Your task to perform on an android device: View the shopping cart on ebay.com. Add "acer predator" to the cart on ebay.com Image 0: 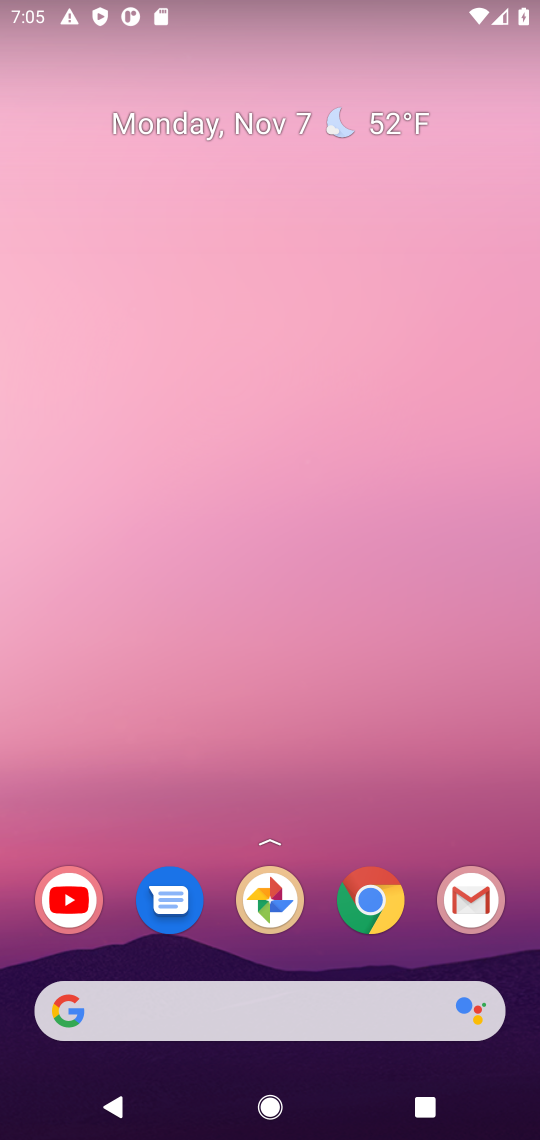
Step 0: click (367, 918)
Your task to perform on an android device: View the shopping cart on ebay.com. Add "acer predator" to the cart on ebay.com Image 1: 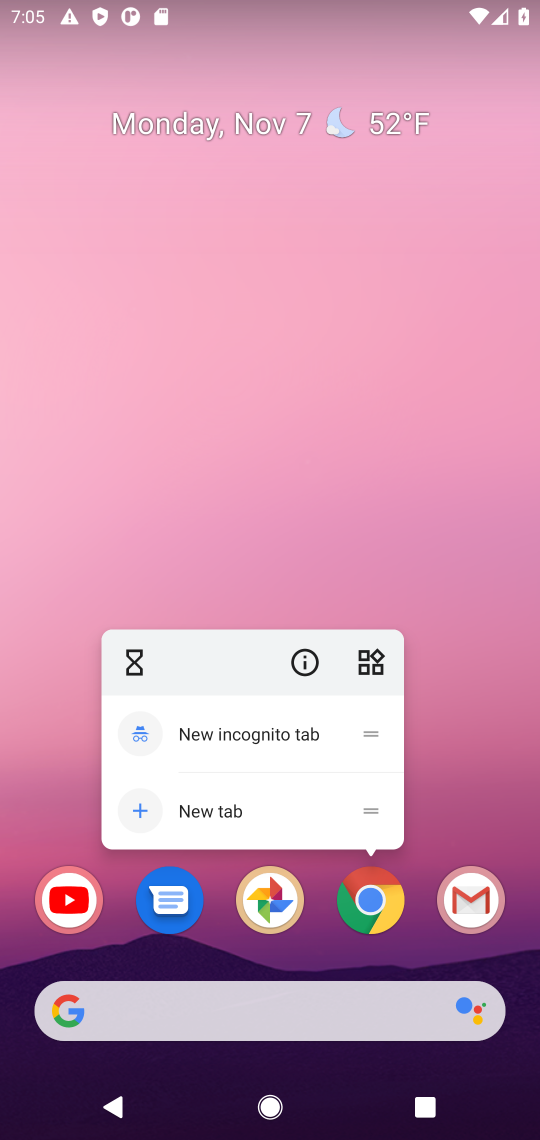
Step 1: click (372, 903)
Your task to perform on an android device: View the shopping cart on ebay.com. Add "acer predator" to the cart on ebay.com Image 2: 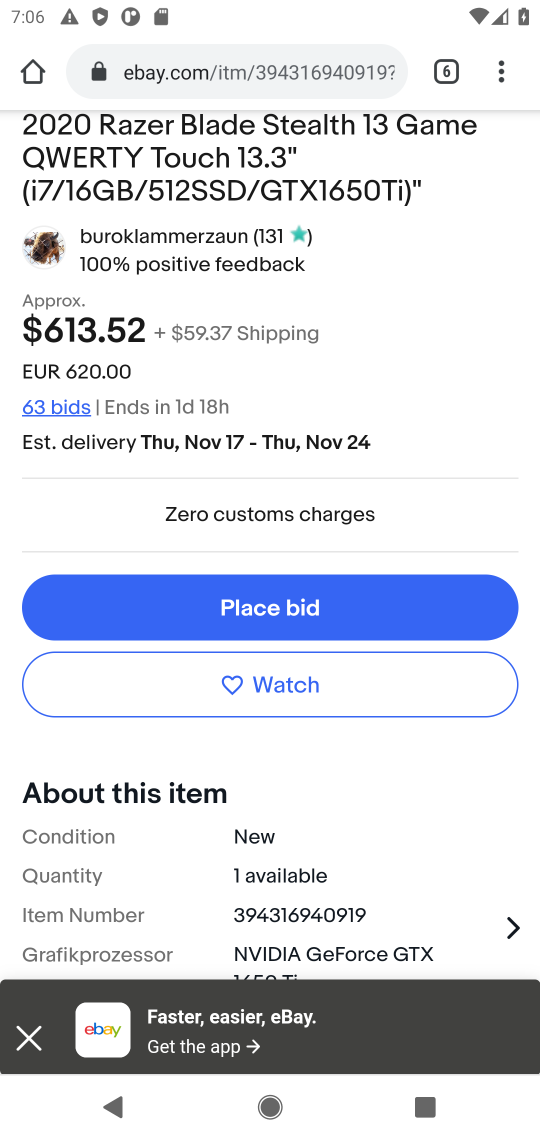
Step 2: drag from (280, 173) to (262, 775)
Your task to perform on an android device: View the shopping cart on ebay.com. Add "acer predator" to the cart on ebay.com Image 3: 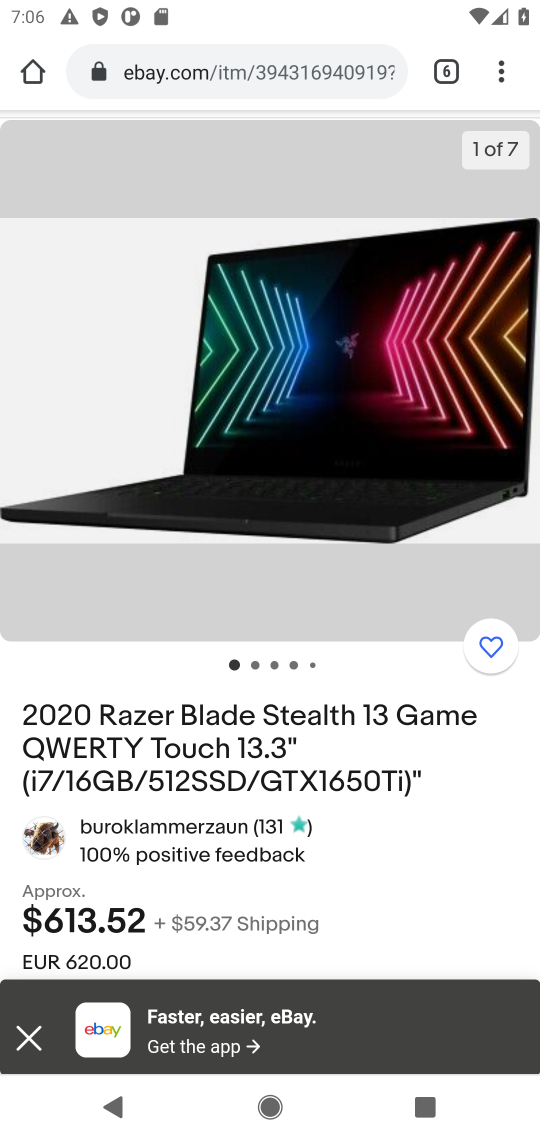
Step 3: click (442, 70)
Your task to perform on an android device: View the shopping cart on ebay.com. Add "acer predator" to the cart on ebay.com Image 4: 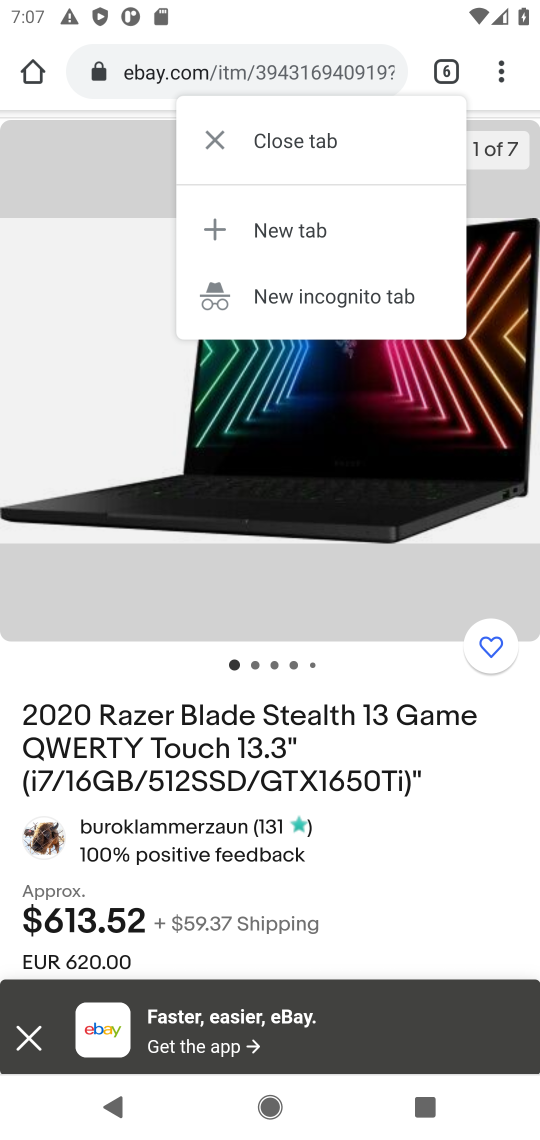
Step 4: click (299, 232)
Your task to perform on an android device: View the shopping cart on ebay.com. Add "acer predator" to the cart on ebay.com Image 5: 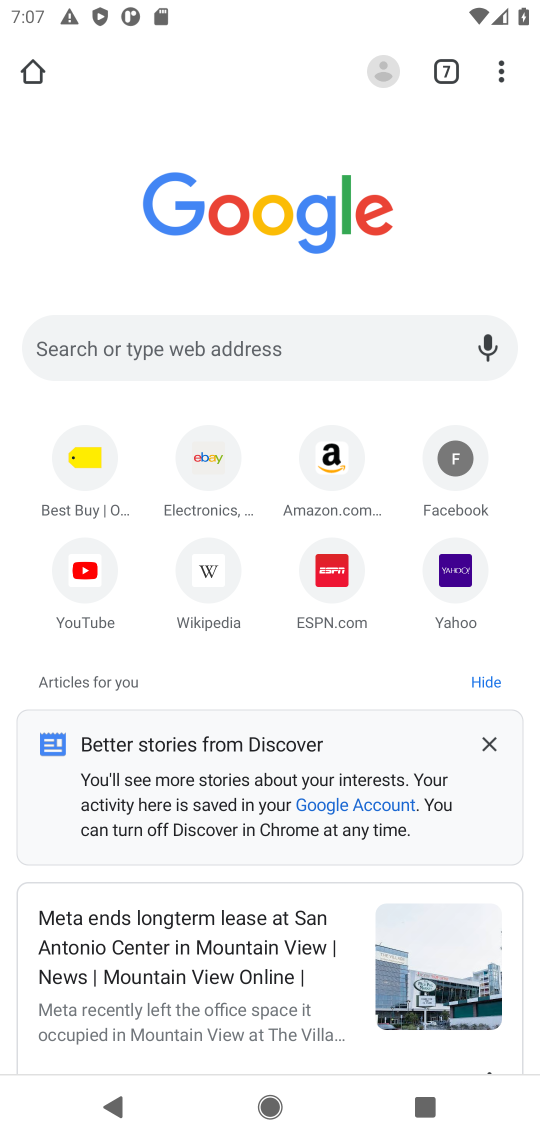
Step 5: click (206, 451)
Your task to perform on an android device: View the shopping cart on ebay.com. Add "acer predator" to the cart on ebay.com Image 6: 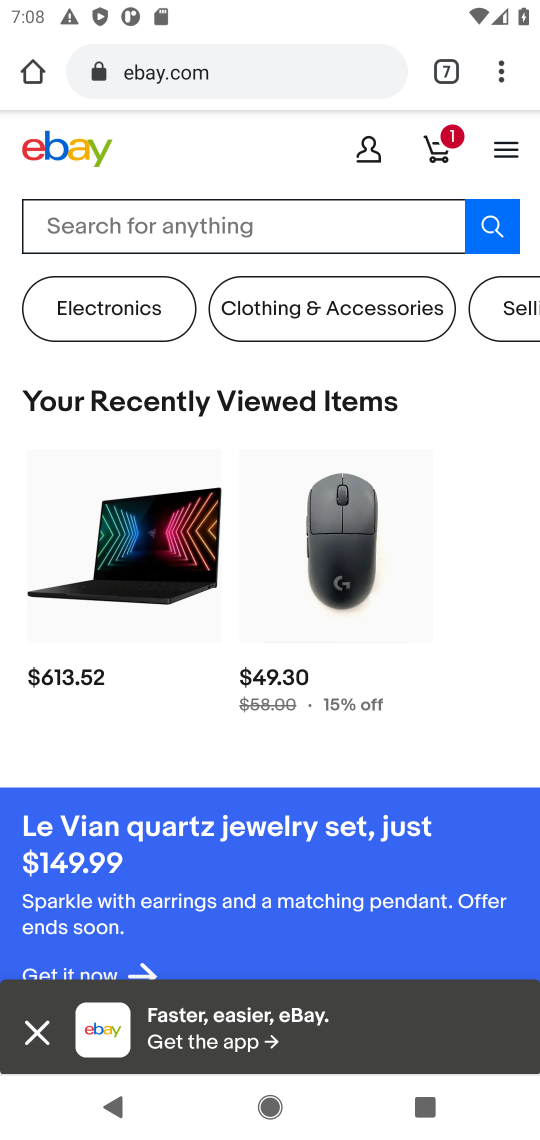
Step 6: click (163, 230)
Your task to perform on an android device: View the shopping cart on ebay.com. Add "acer predator" to the cart on ebay.com Image 7: 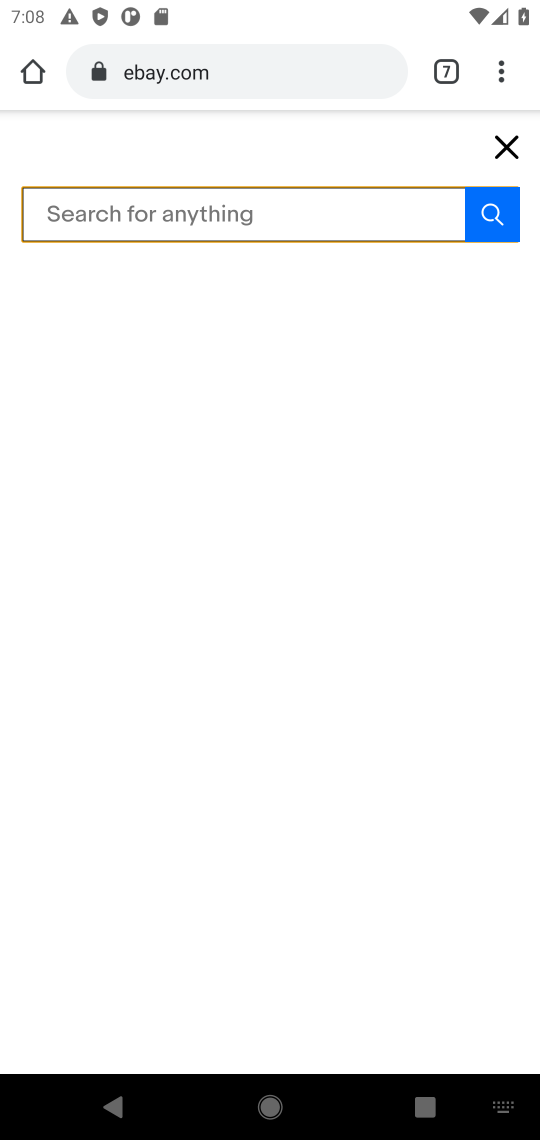
Step 7: click (160, 205)
Your task to perform on an android device: View the shopping cart on ebay.com. Add "acer predator" to the cart on ebay.com Image 8: 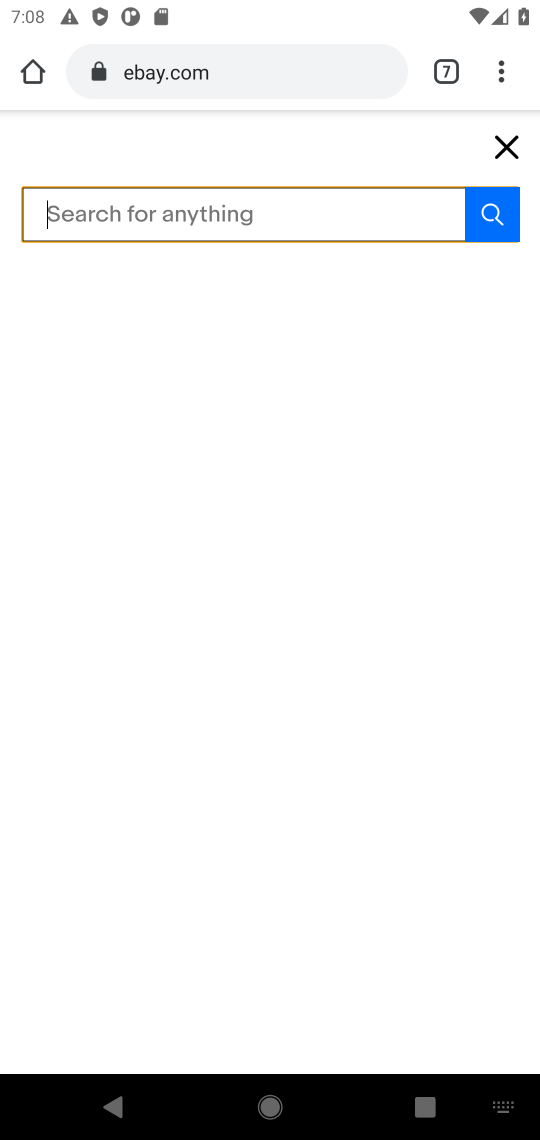
Step 8: type "acer predator"
Your task to perform on an android device: View the shopping cart on ebay.com. Add "acer predator" to the cart on ebay.com Image 9: 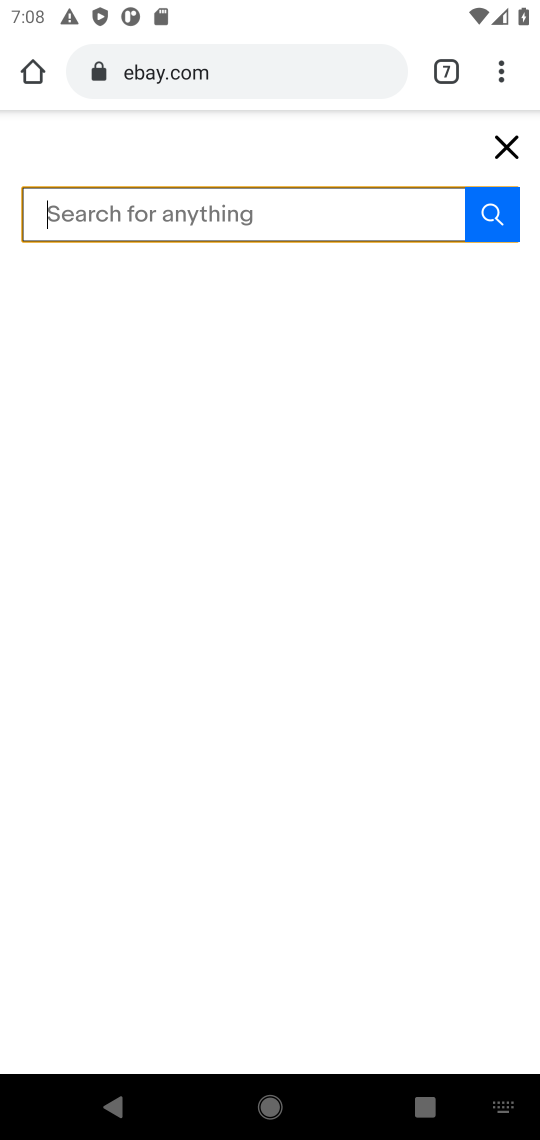
Step 9: click (275, 656)
Your task to perform on an android device: View the shopping cart on ebay.com. Add "acer predator" to the cart on ebay.com Image 10: 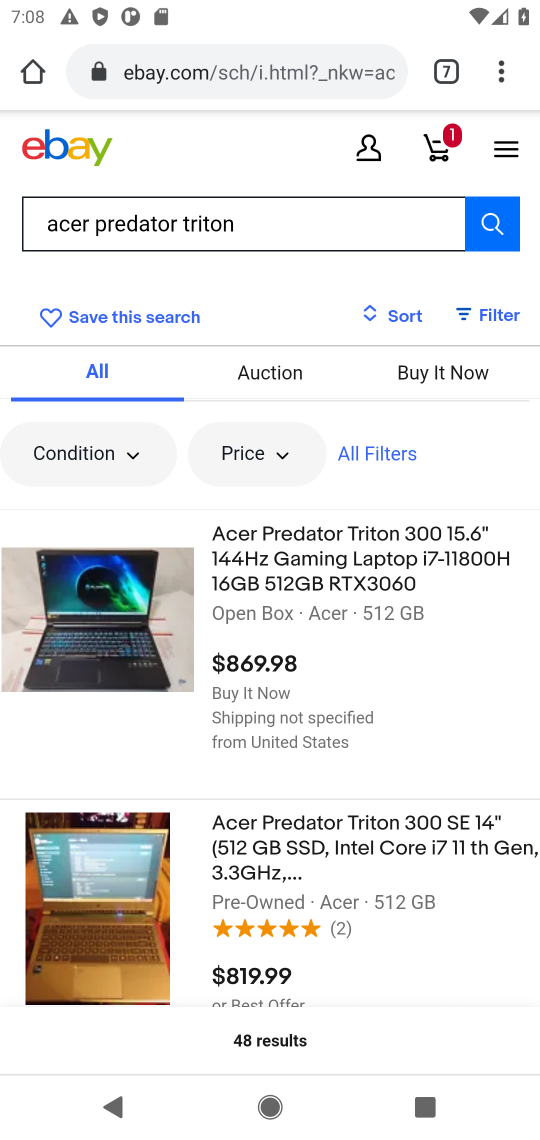
Step 10: click (317, 205)
Your task to perform on an android device: View the shopping cart on ebay.com. Add "acer predator" to the cart on ebay.com Image 11: 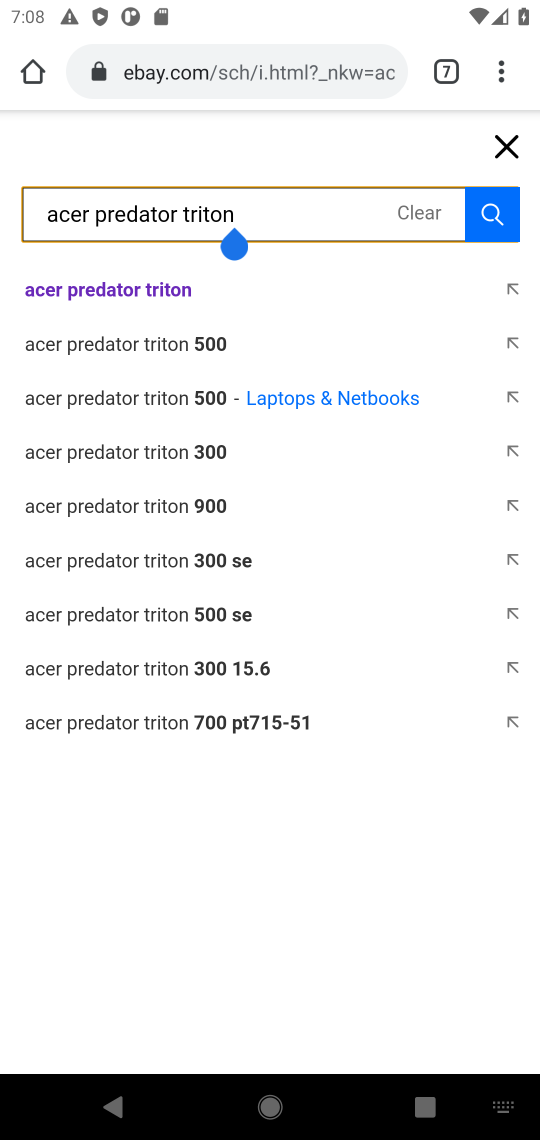
Step 11: click (427, 218)
Your task to perform on an android device: View the shopping cart on ebay.com. Add "acer predator" to the cart on ebay.com Image 12: 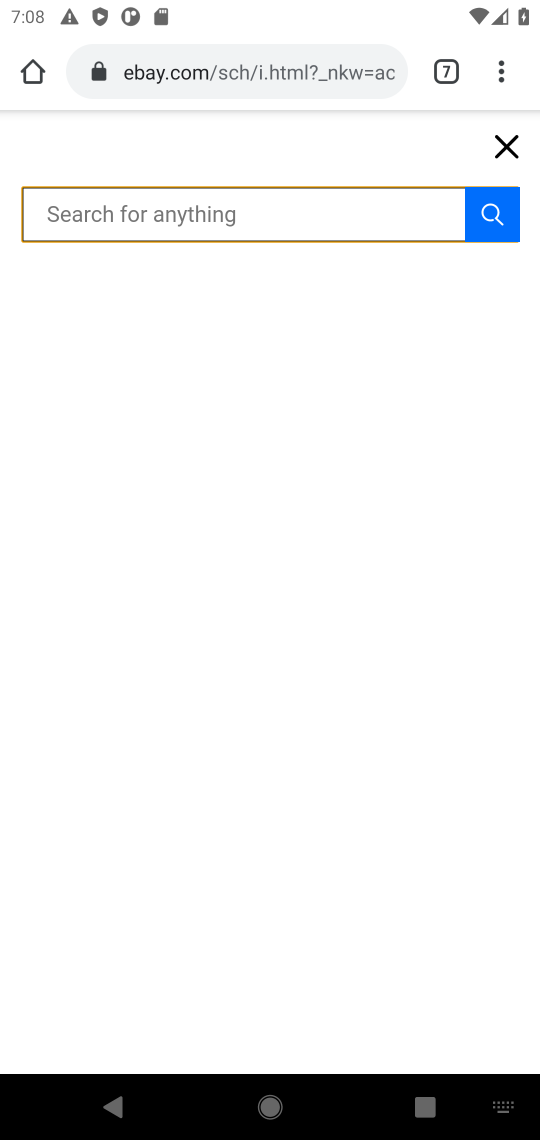
Step 12: click (104, 215)
Your task to perform on an android device: View the shopping cart on ebay.com. Add "acer predator" to the cart on ebay.com Image 13: 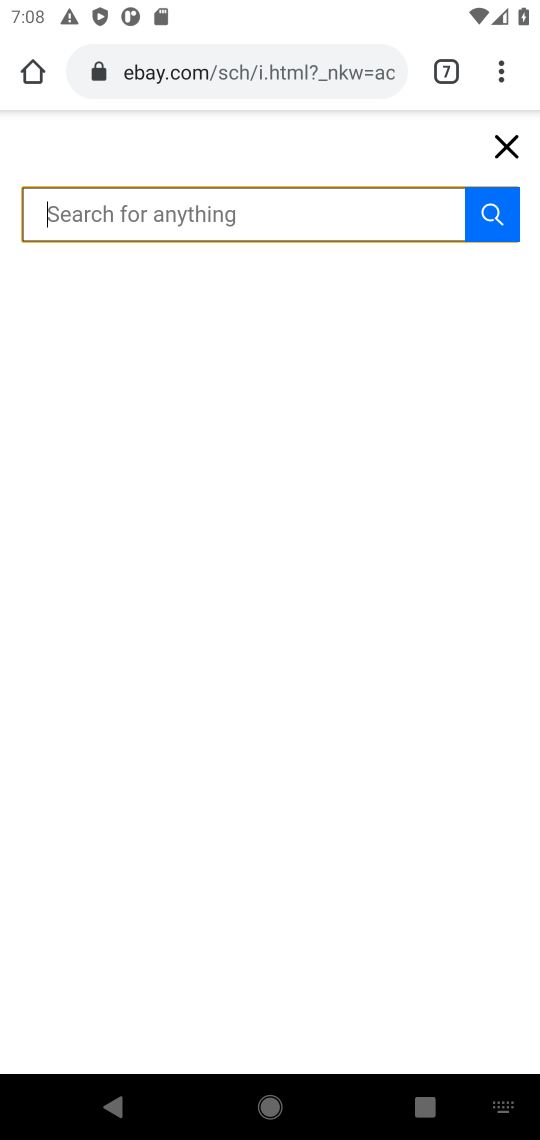
Step 13: type "acer predator"
Your task to perform on an android device: View the shopping cart on ebay.com. Add "acer predator" to the cart on ebay.com Image 14: 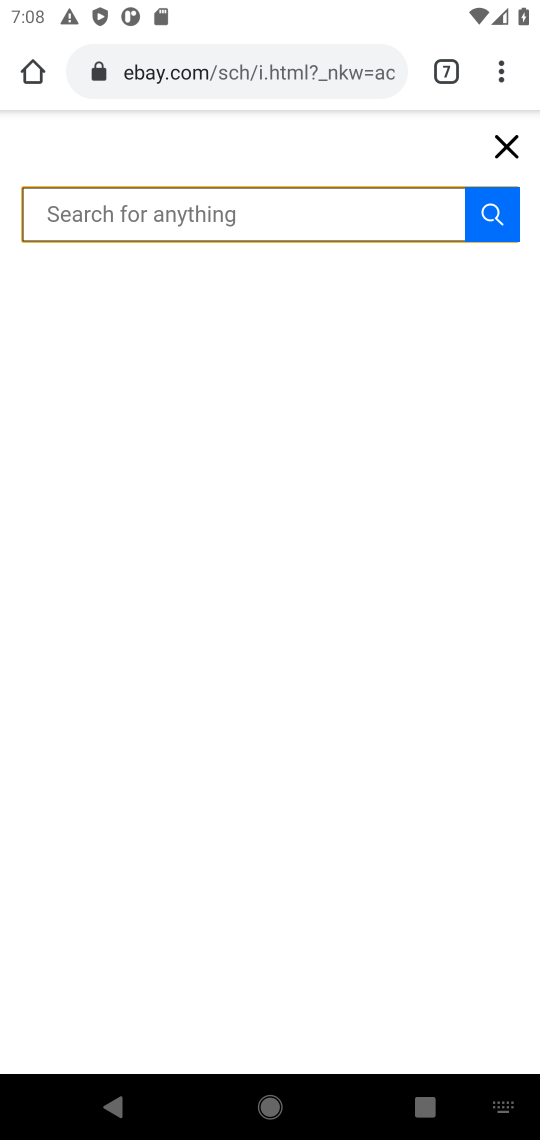
Step 14: click (298, 679)
Your task to perform on an android device: View the shopping cart on ebay.com. Add "acer predator" to the cart on ebay.com Image 15: 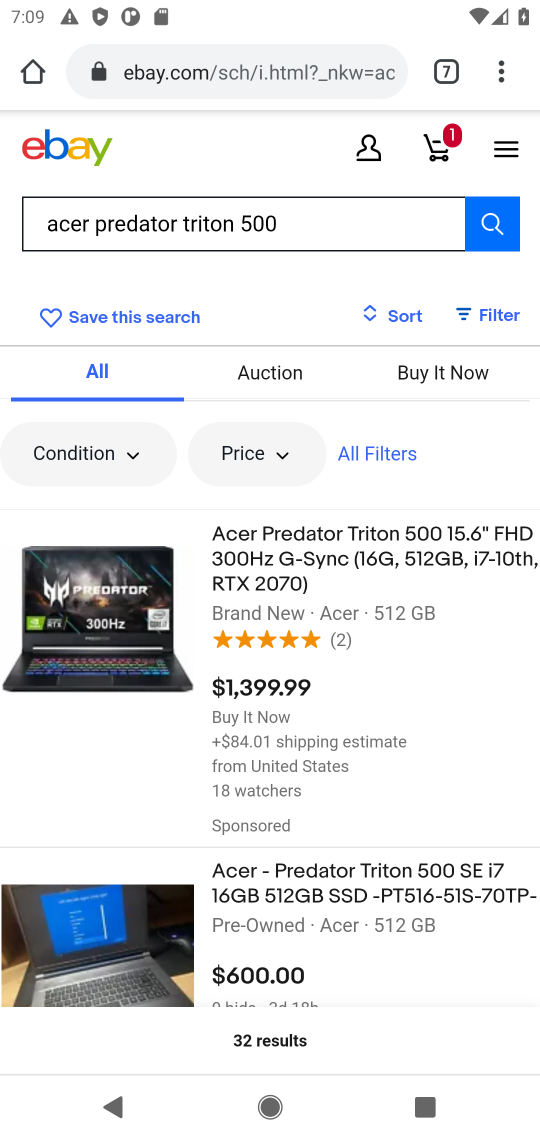
Step 15: click (129, 597)
Your task to perform on an android device: View the shopping cart on ebay.com. Add "acer predator" to the cart on ebay.com Image 16: 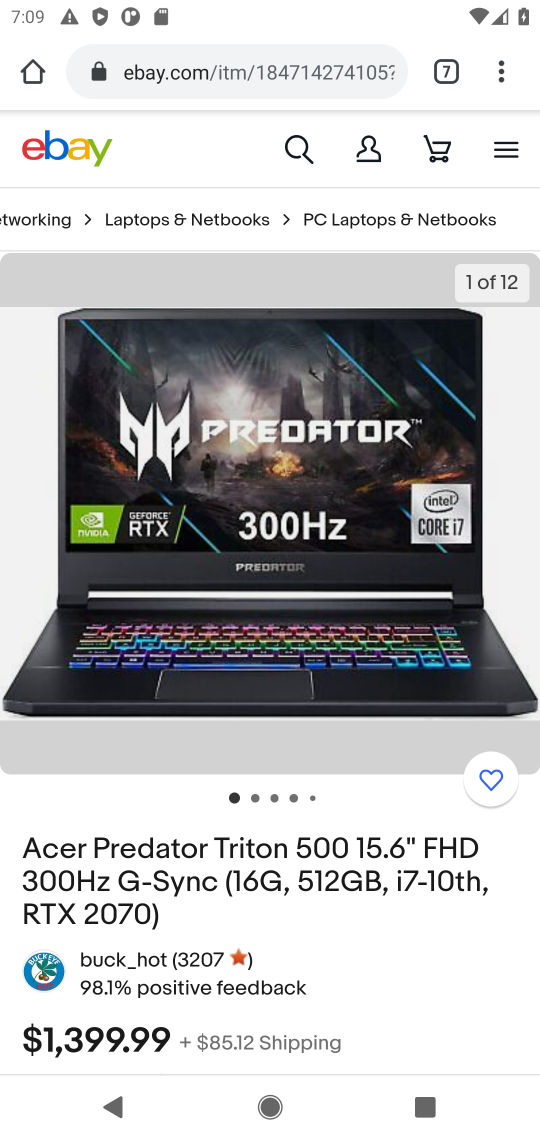
Step 16: drag from (223, 834) to (320, 580)
Your task to perform on an android device: View the shopping cart on ebay.com. Add "acer predator" to the cart on ebay.com Image 17: 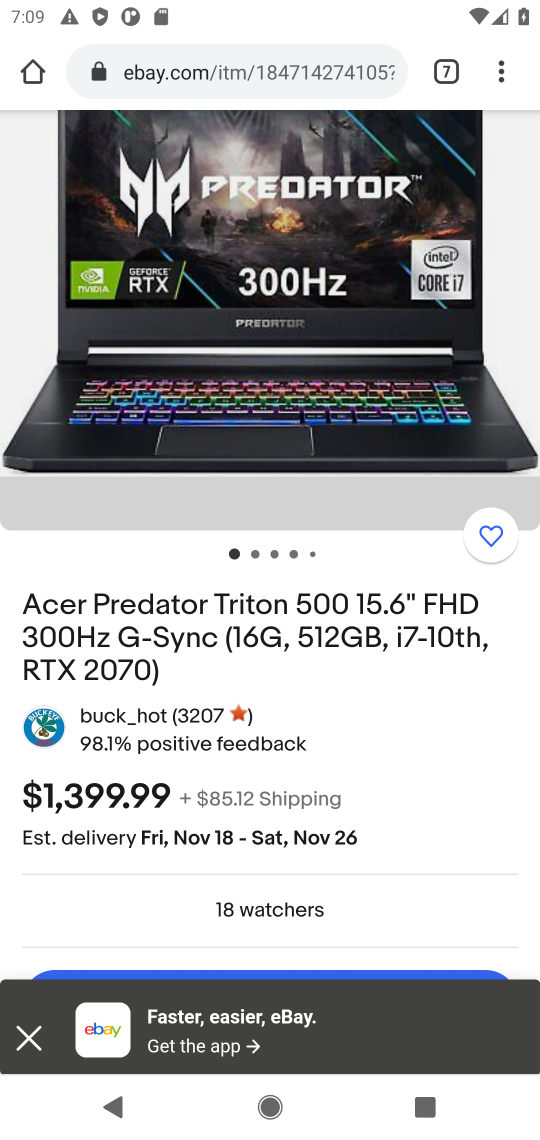
Step 17: drag from (301, 834) to (366, 338)
Your task to perform on an android device: View the shopping cart on ebay.com. Add "acer predator" to the cart on ebay.com Image 18: 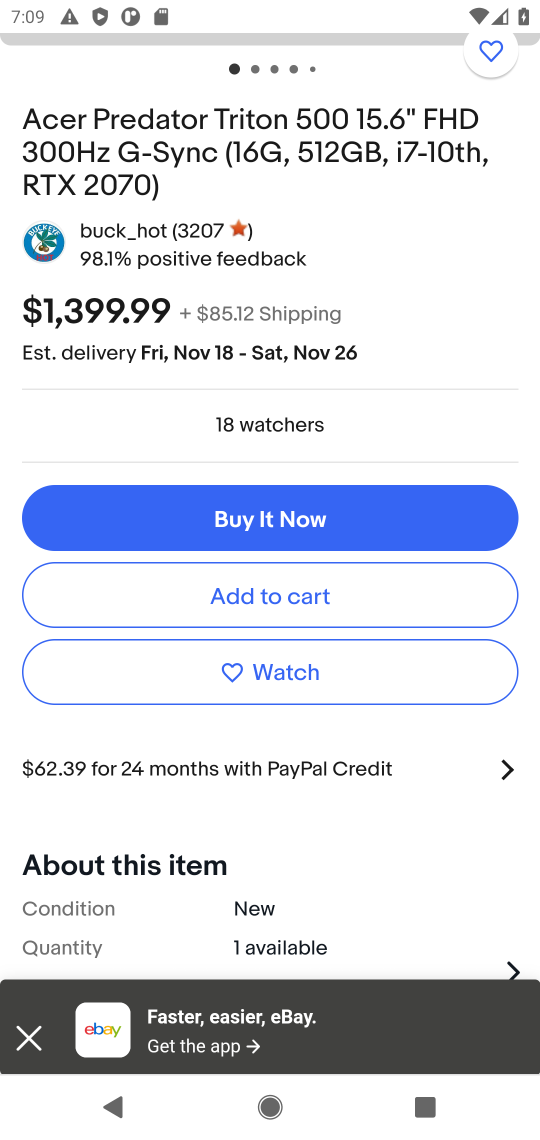
Step 18: click (327, 593)
Your task to perform on an android device: View the shopping cart on ebay.com. Add "acer predator" to the cart on ebay.com Image 19: 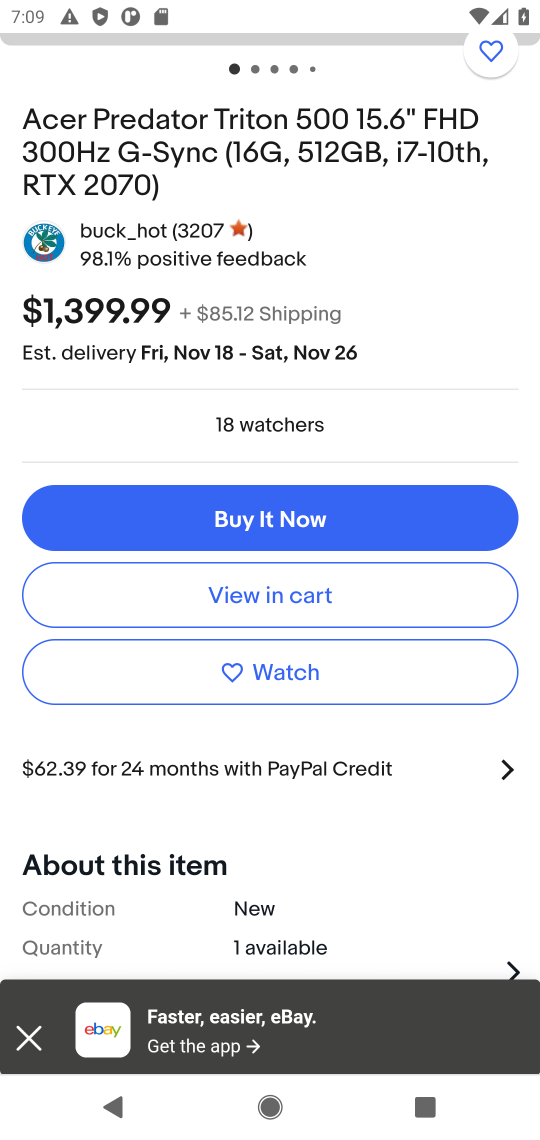
Step 19: task complete